Your task to perform on an android device: See recent photos Image 0: 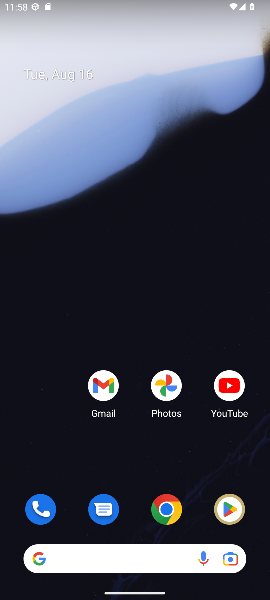
Step 0: press home button
Your task to perform on an android device: See recent photos Image 1: 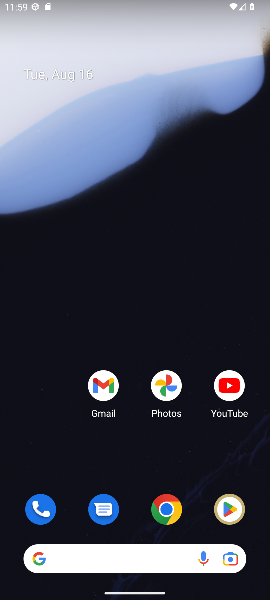
Step 1: click (157, 396)
Your task to perform on an android device: See recent photos Image 2: 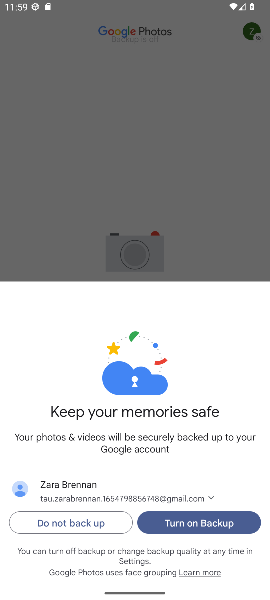
Step 2: click (108, 517)
Your task to perform on an android device: See recent photos Image 3: 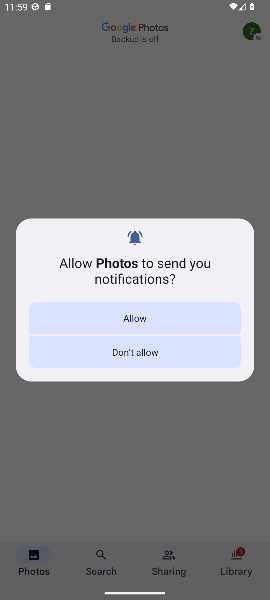
Step 3: click (118, 319)
Your task to perform on an android device: See recent photos Image 4: 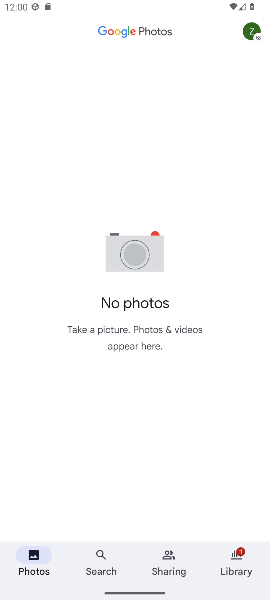
Step 4: task complete